Your task to perform on an android device: Show me recent news Image 0: 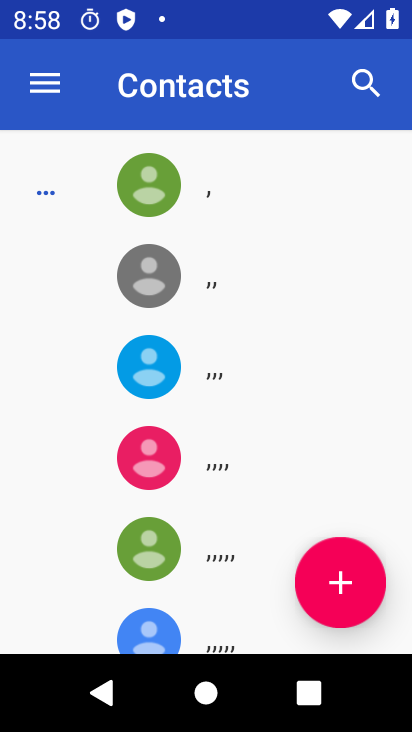
Step 0: press home button
Your task to perform on an android device: Show me recent news Image 1: 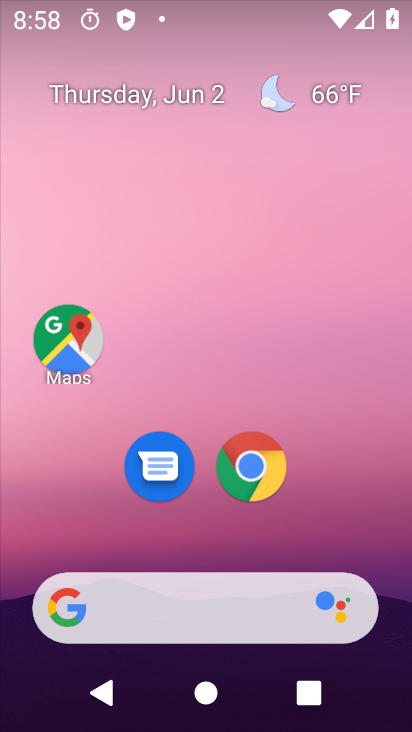
Step 1: click (155, 597)
Your task to perform on an android device: Show me recent news Image 2: 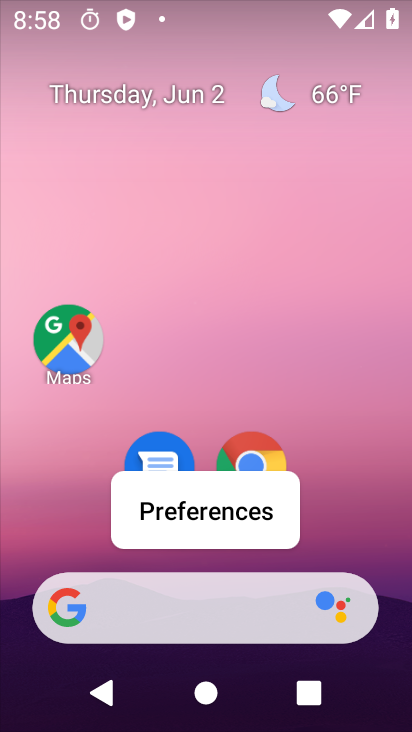
Step 2: click (217, 642)
Your task to perform on an android device: Show me recent news Image 3: 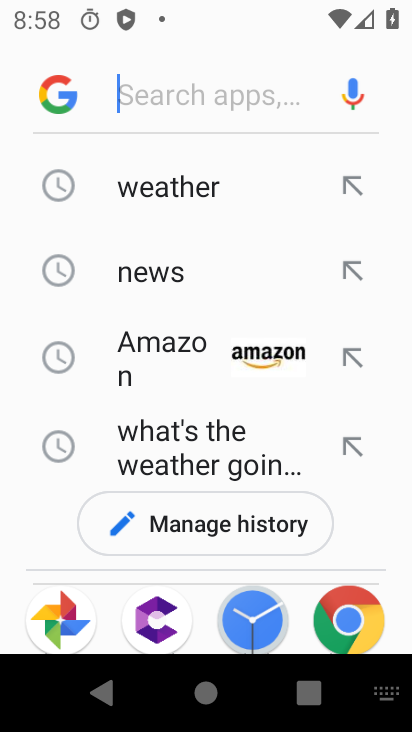
Step 3: click (151, 281)
Your task to perform on an android device: Show me recent news Image 4: 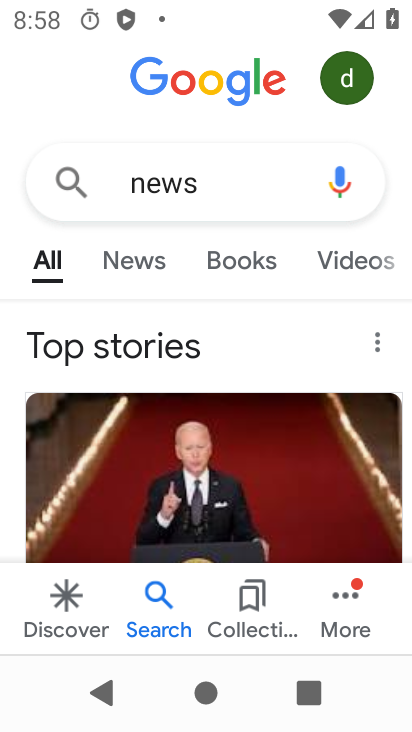
Step 4: task complete